Your task to perform on an android device: When is my next meeting? Image 0: 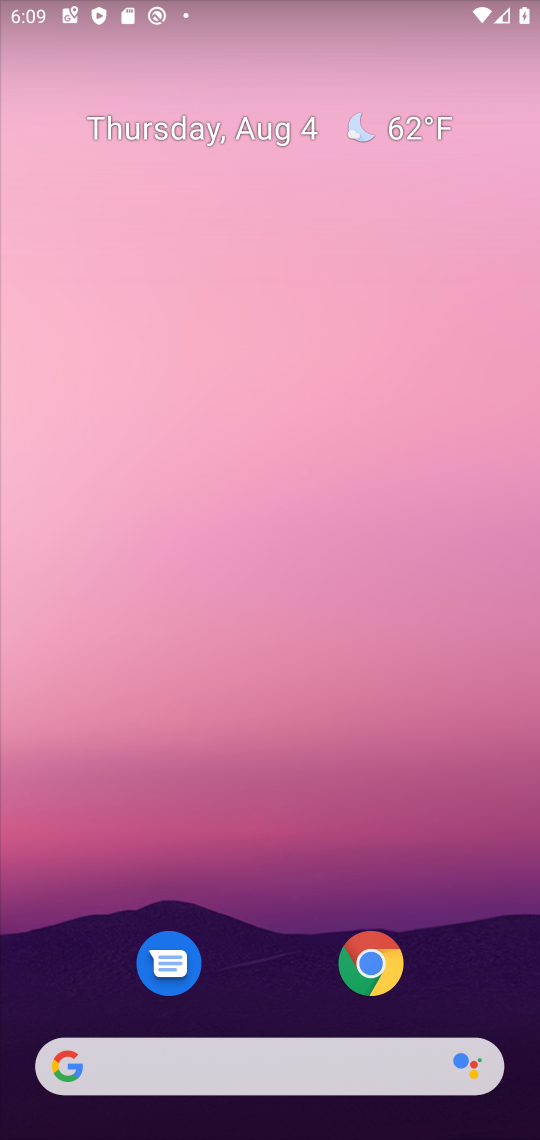
Step 0: drag from (287, 923) to (272, 308)
Your task to perform on an android device: When is my next meeting? Image 1: 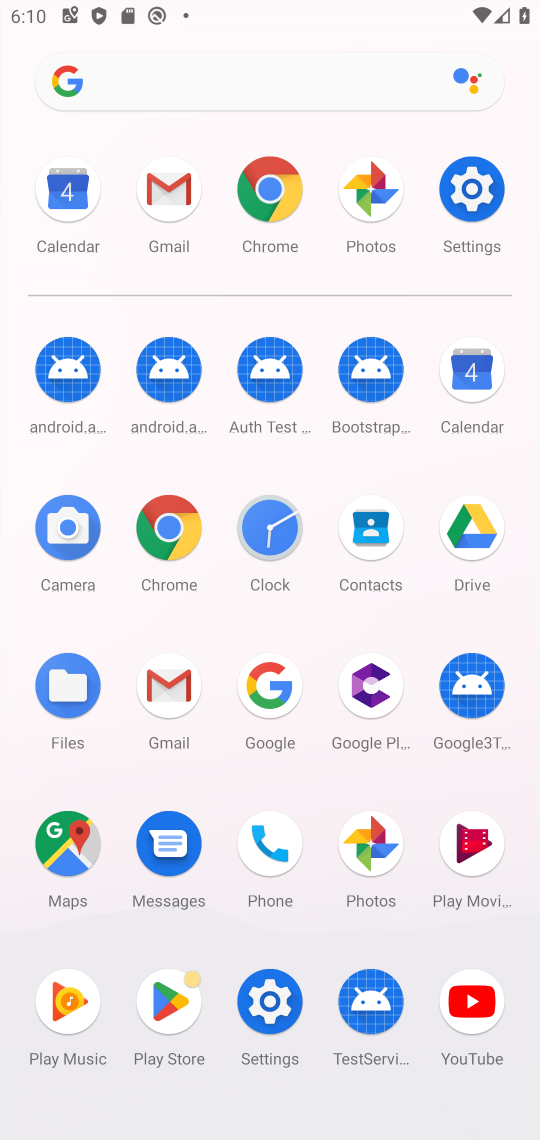
Step 1: click (464, 376)
Your task to perform on an android device: When is my next meeting? Image 2: 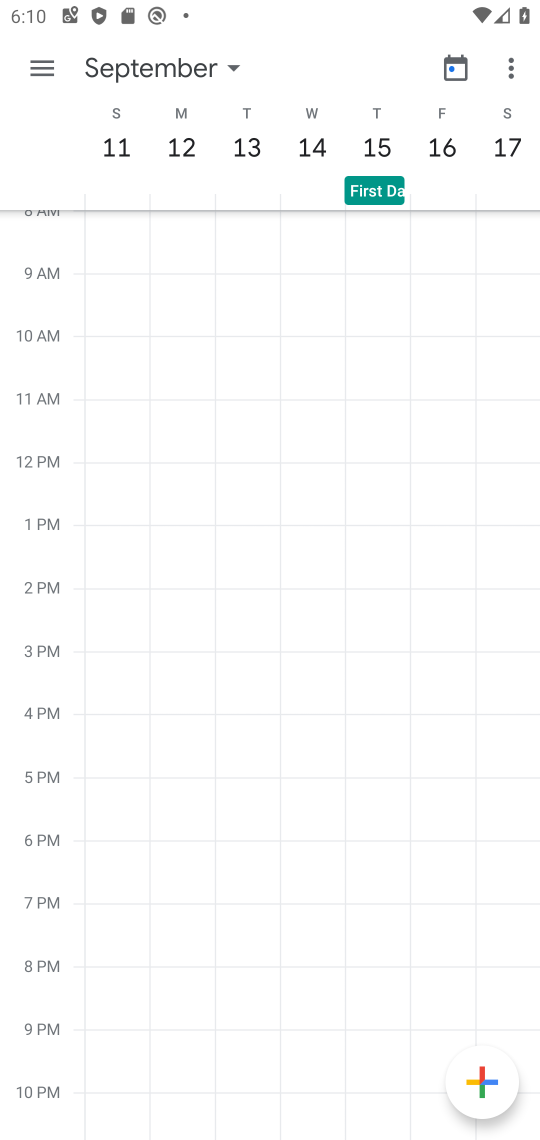
Step 2: click (233, 58)
Your task to perform on an android device: When is my next meeting? Image 3: 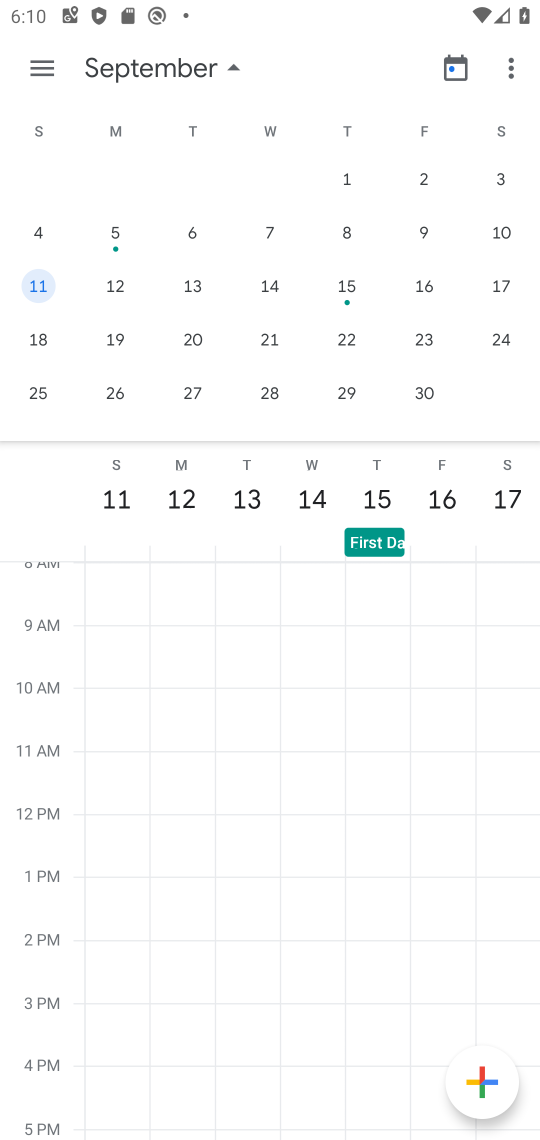
Step 3: drag from (102, 312) to (493, 338)
Your task to perform on an android device: When is my next meeting? Image 4: 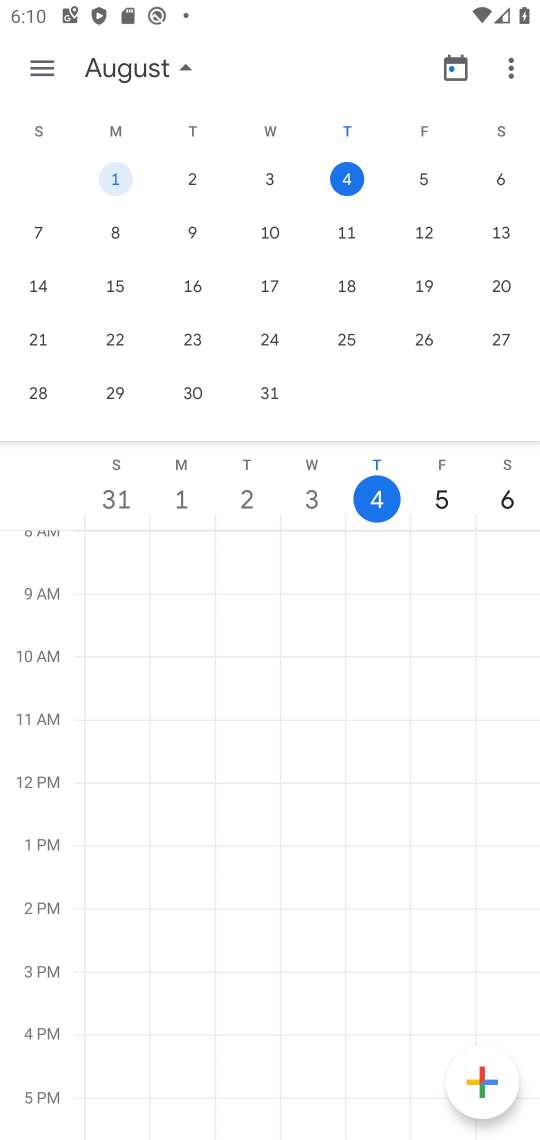
Step 4: click (351, 168)
Your task to perform on an android device: When is my next meeting? Image 5: 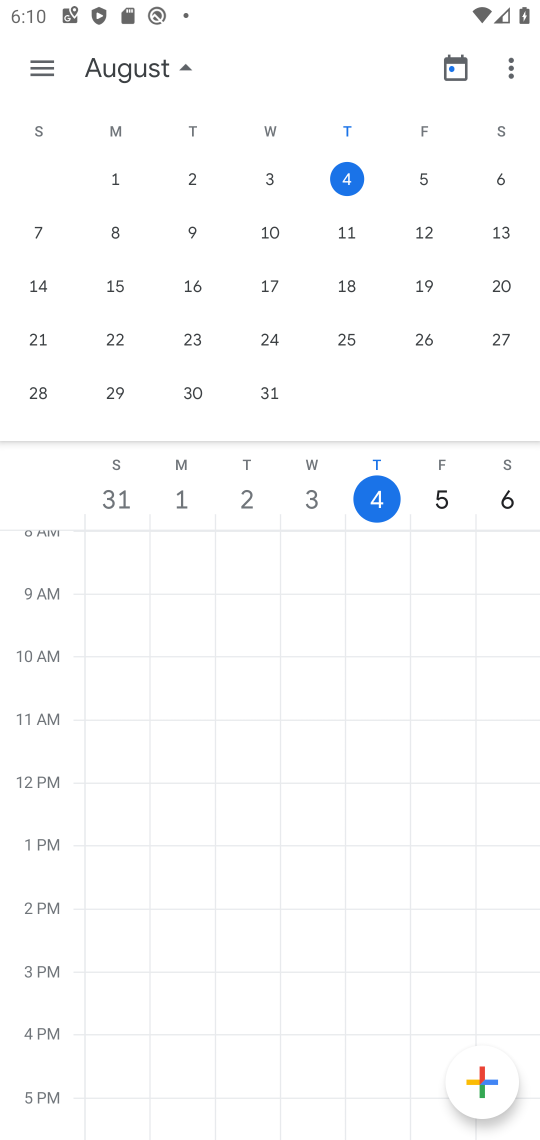
Step 5: click (342, 183)
Your task to perform on an android device: When is my next meeting? Image 6: 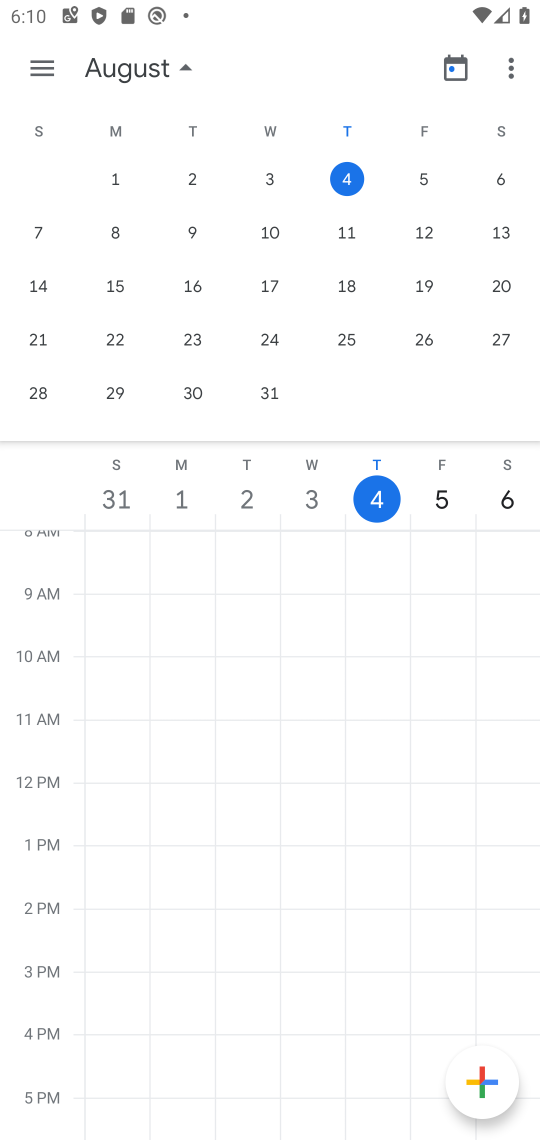
Step 6: click (354, 185)
Your task to perform on an android device: When is my next meeting? Image 7: 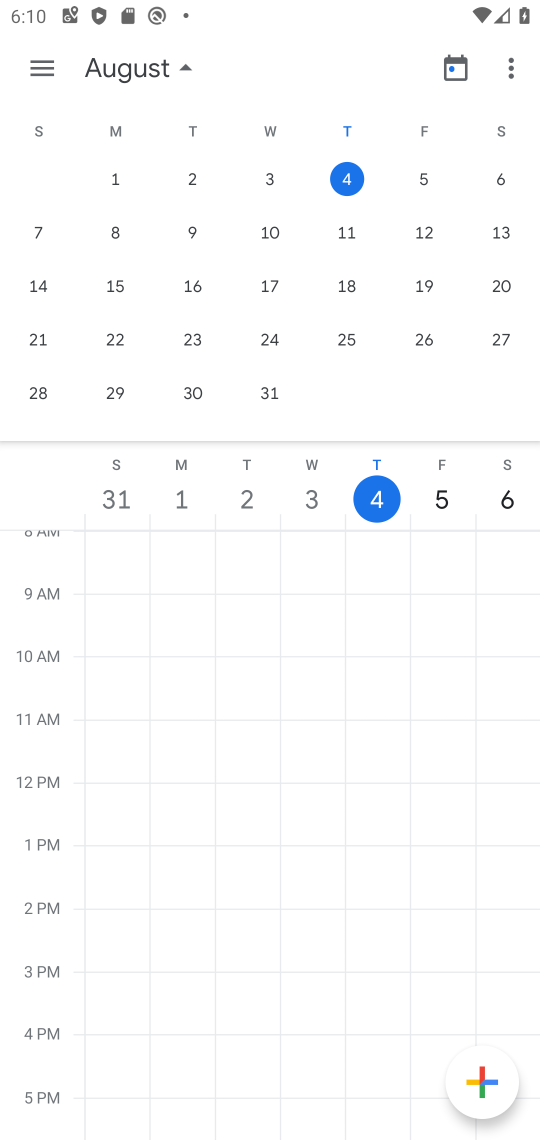
Step 7: click (384, 503)
Your task to perform on an android device: When is my next meeting? Image 8: 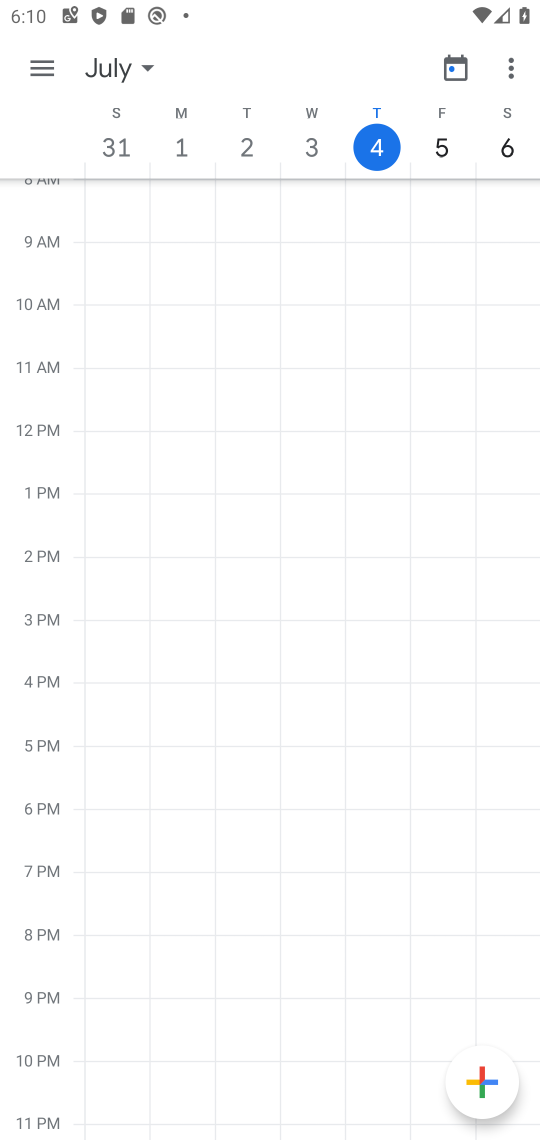
Step 8: click (374, 142)
Your task to perform on an android device: When is my next meeting? Image 9: 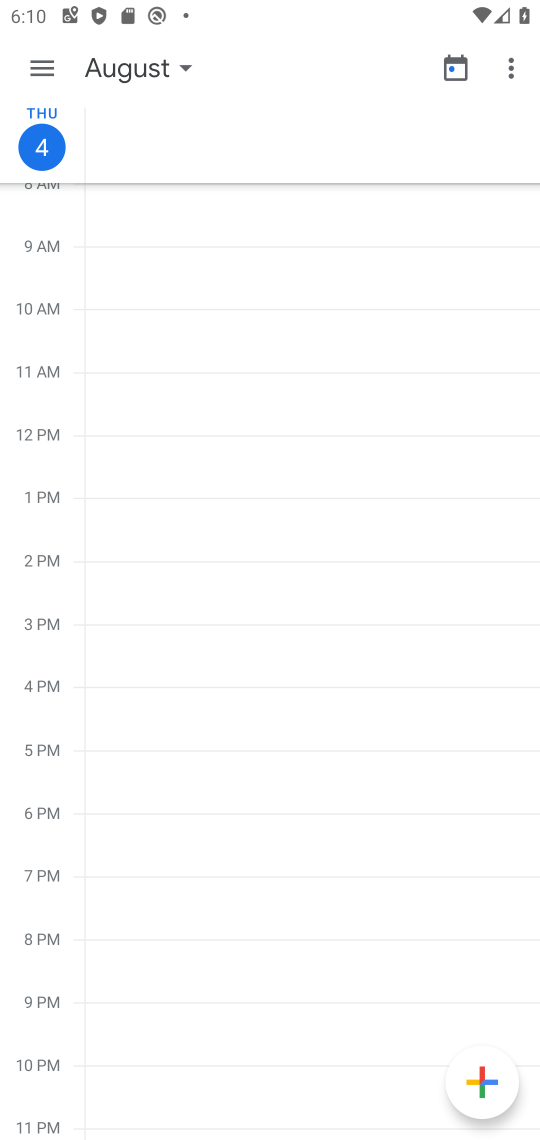
Step 9: task complete